Your task to perform on an android device: delete a single message in the gmail app Image 0: 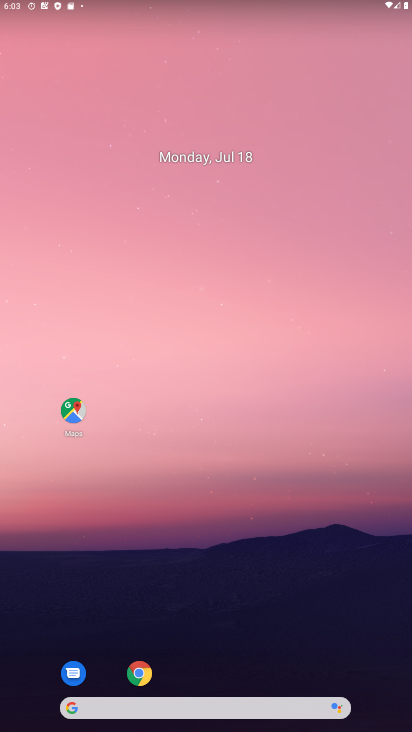
Step 0: drag from (202, 623) to (105, 271)
Your task to perform on an android device: delete a single message in the gmail app Image 1: 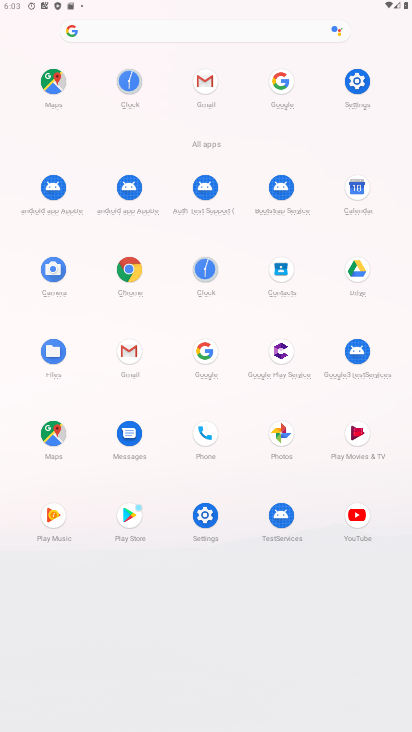
Step 1: click (129, 358)
Your task to perform on an android device: delete a single message in the gmail app Image 2: 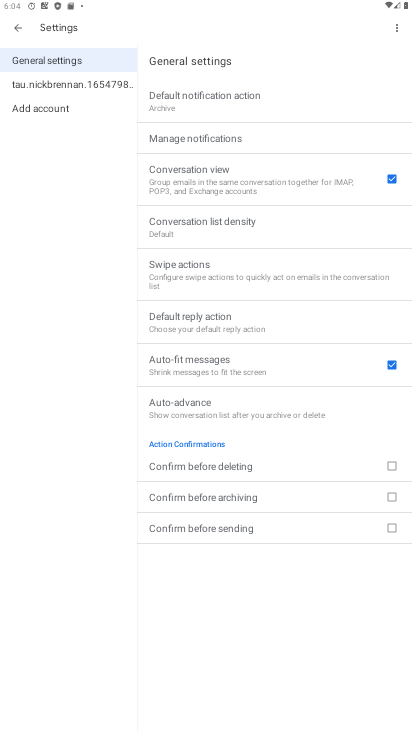
Step 2: click (22, 26)
Your task to perform on an android device: delete a single message in the gmail app Image 3: 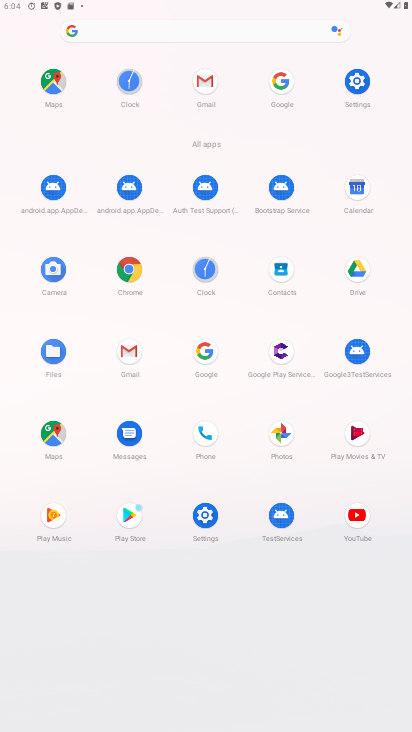
Step 3: click (119, 357)
Your task to perform on an android device: delete a single message in the gmail app Image 4: 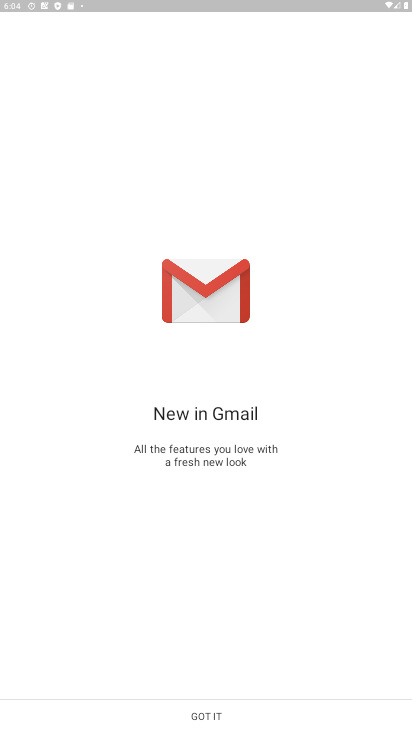
Step 4: click (210, 719)
Your task to perform on an android device: delete a single message in the gmail app Image 5: 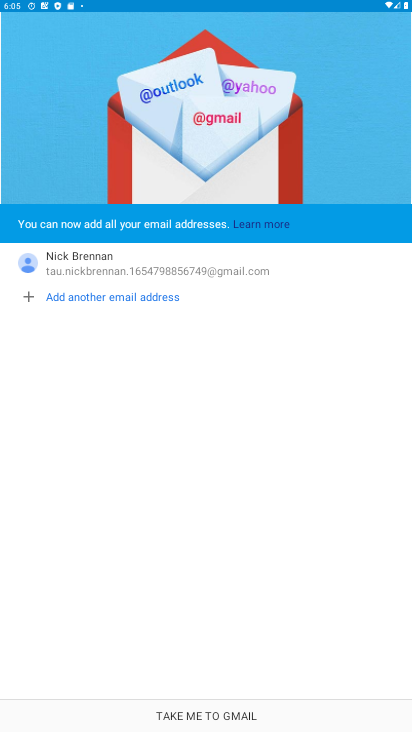
Step 5: click (211, 719)
Your task to perform on an android device: delete a single message in the gmail app Image 6: 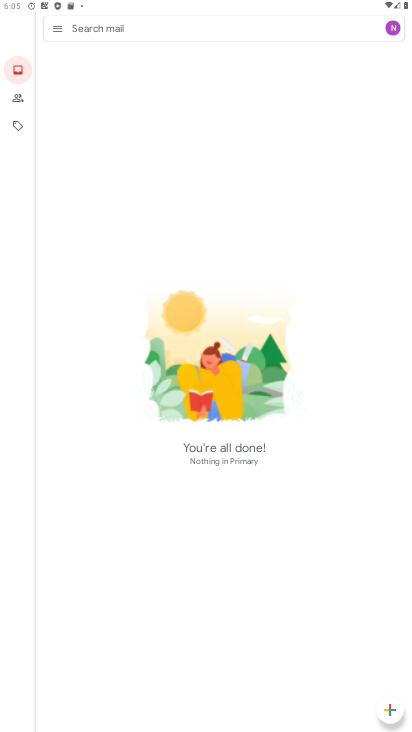
Step 6: click (61, 25)
Your task to perform on an android device: delete a single message in the gmail app Image 7: 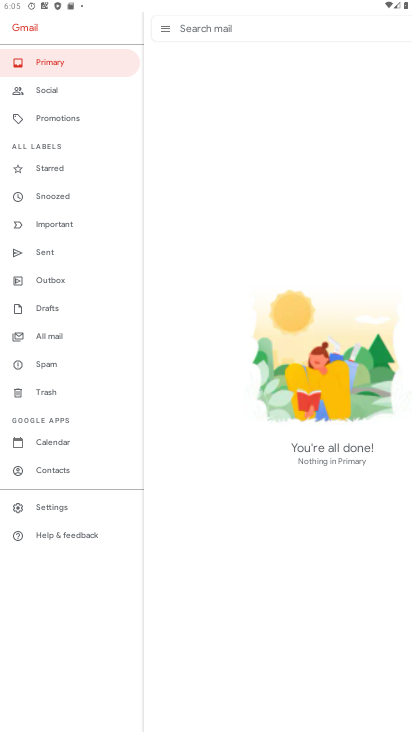
Step 7: task complete